Your task to perform on an android device: Open internet settings Image 0: 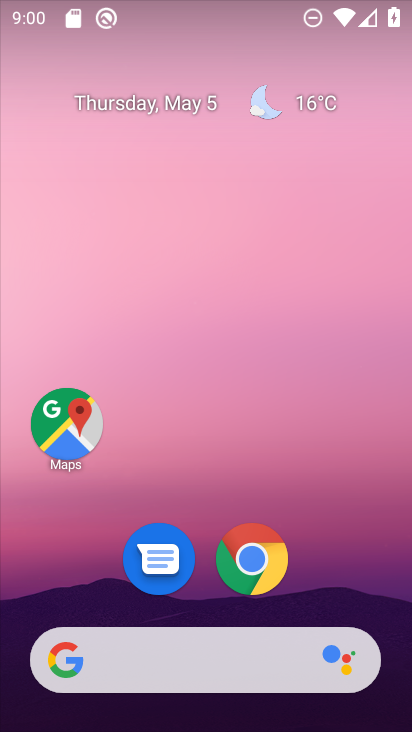
Step 0: drag from (345, 587) to (378, 43)
Your task to perform on an android device: Open internet settings Image 1: 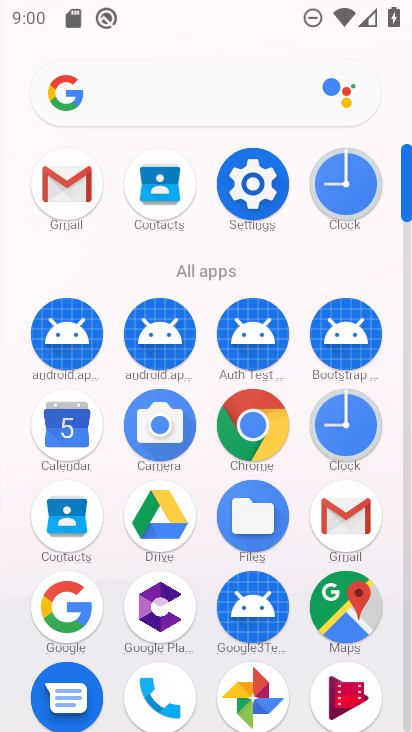
Step 1: click (255, 191)
Your task to perform on an android device: Open internet settings Image 2: 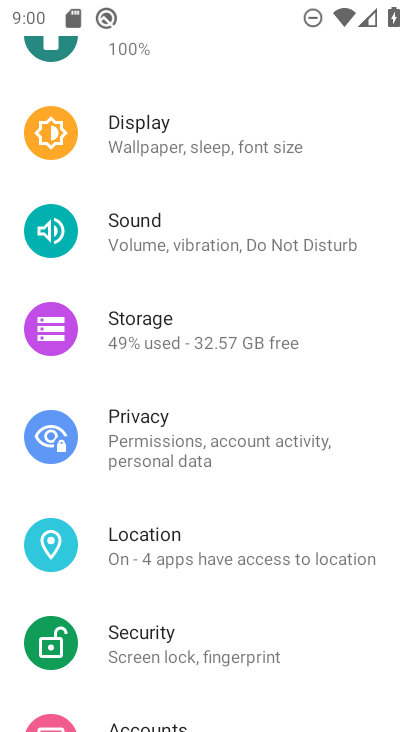
Step 2: drag from (380, 166) to (386, 479)
Your task to perform on an android device: Open internet settings Image 3: 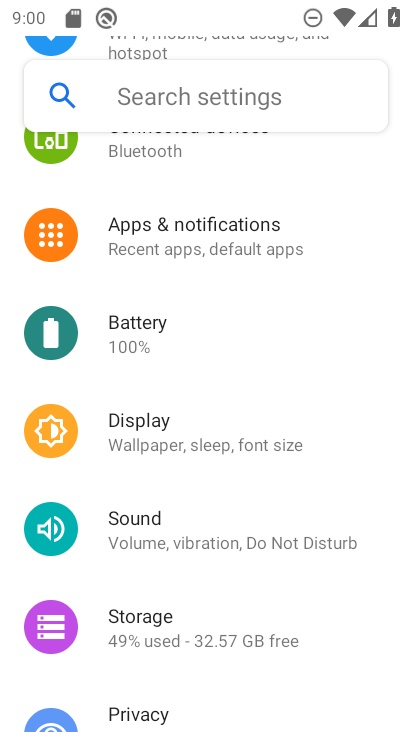
Step 3: drag from (379, 203) to (367, 537)
Your task to perform on an android device: Open internet settings Image 4: 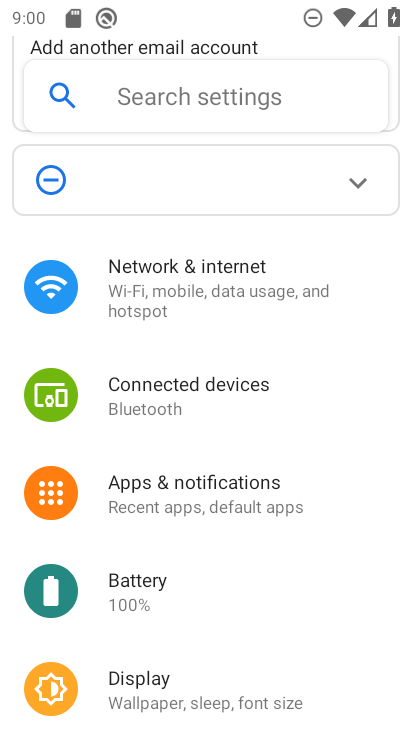
Step 4: click (208, 291)
Your task to perform on an android device: Open internet settings Image 5: 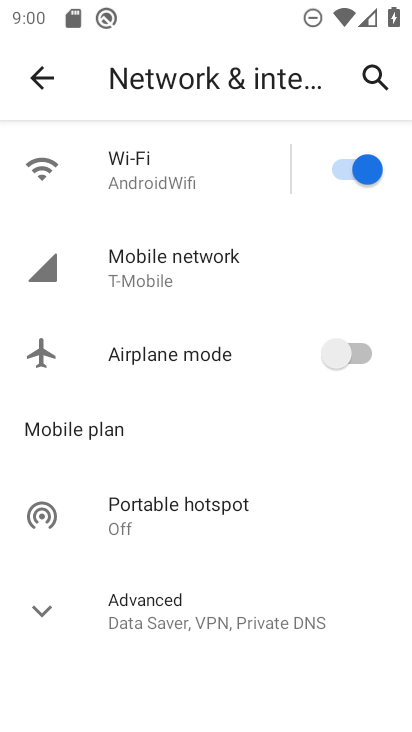
Step 5: task complete